Your task to perform on an android device: Show the shopping cart on newegg.com. Add "beats solo 3" to the cart on newegg.com Image 0: 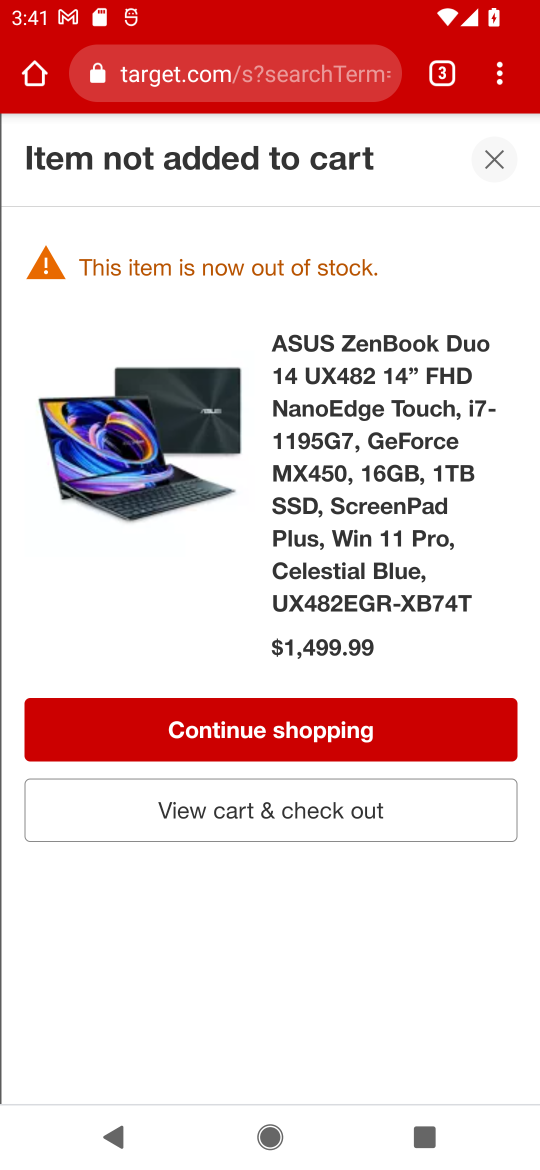
Step 0: press home button
Your task to perform on an android device: Show the shopping cart on newegg.com. Add "beats solo 3" to the cart on newegg.com Image 1: 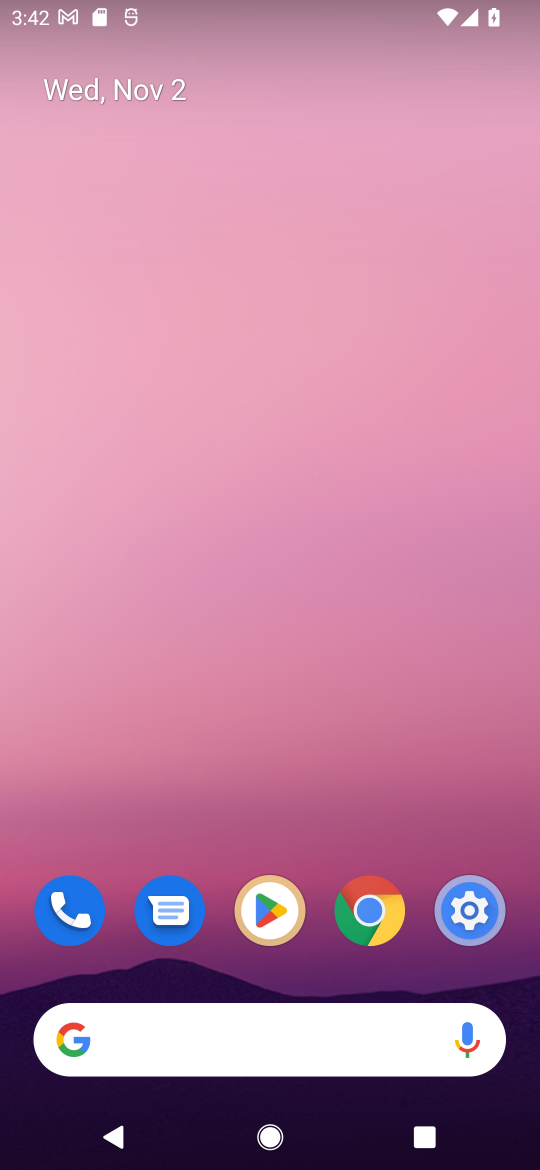
Step 1: click (372, 922)
Your task to perform on an android device: Show the shopping cart on newegg.com. Add "beats solo 3" to the cart on newegg.com Image 2: 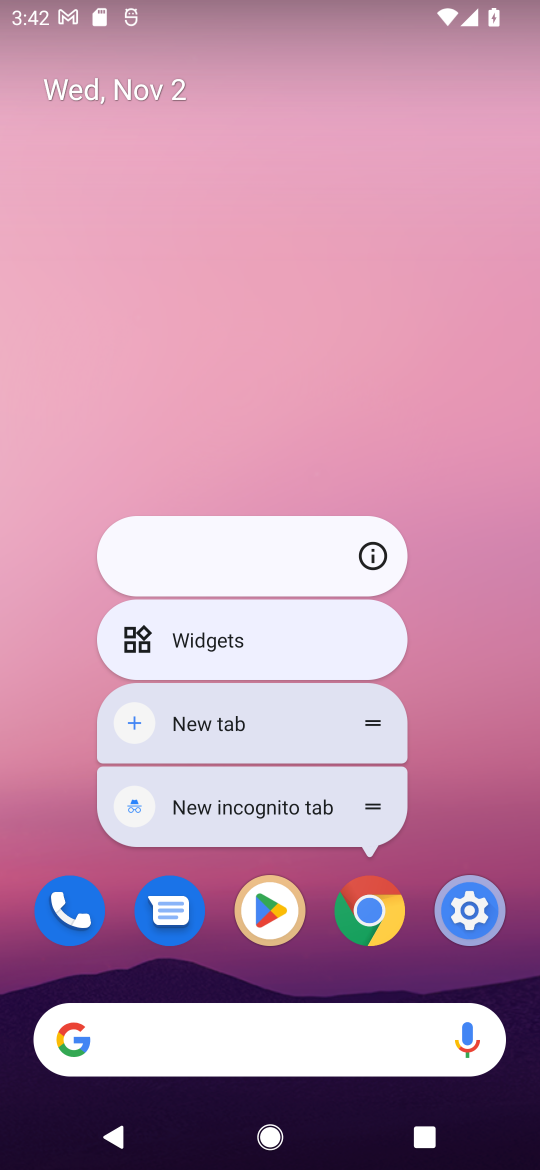
Step 2: click (370, 912)
Your task to perform on an android device: Show the shopping cart on newegg.com. Add "beats solo 3" to the cart on newegg.com Image 3: 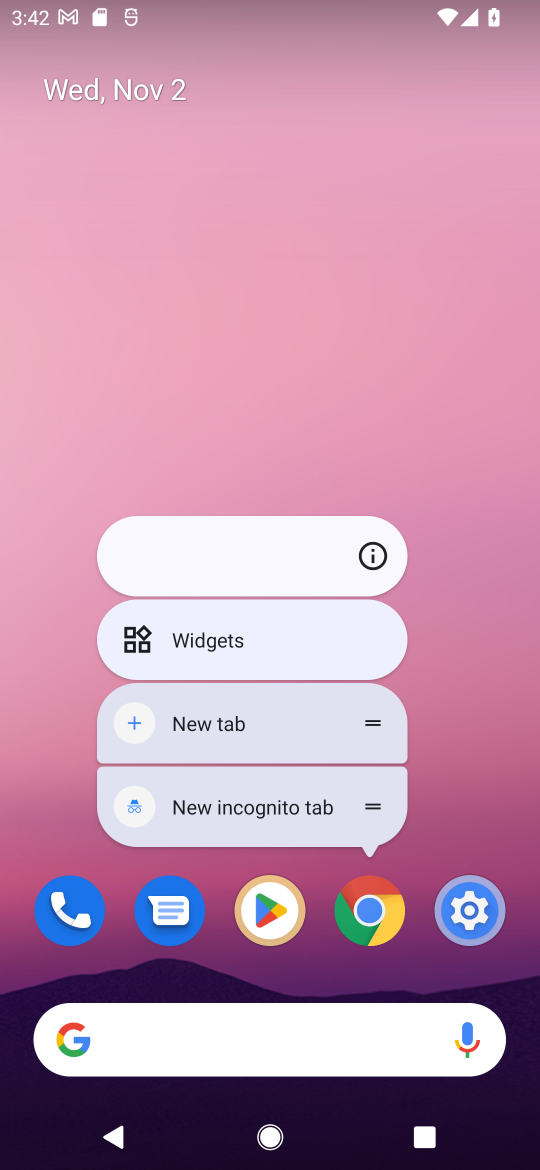
Step 3: click (368, 907)
Your task to perform on an android device: Show the shopping cart on newegg.com. Add "beats solo 3" to the cart on newegg.com Image 4: 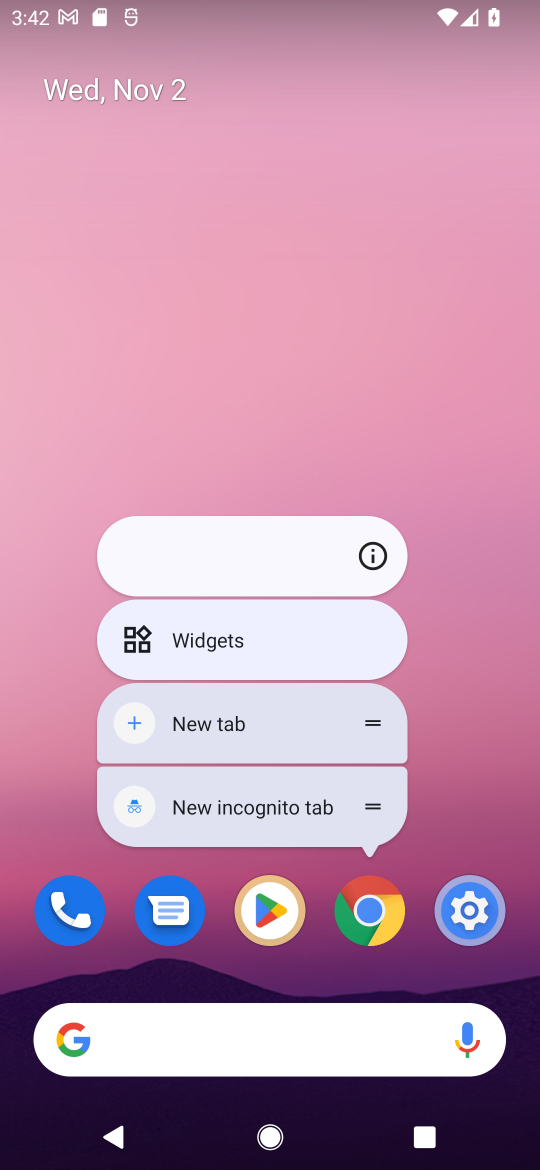
Step 4: click (368, 905)
Your task to perform on an android device: Show the shopping cart on newegg.com. Add "beats solo 3" to the cart on newegg.com Image 5: 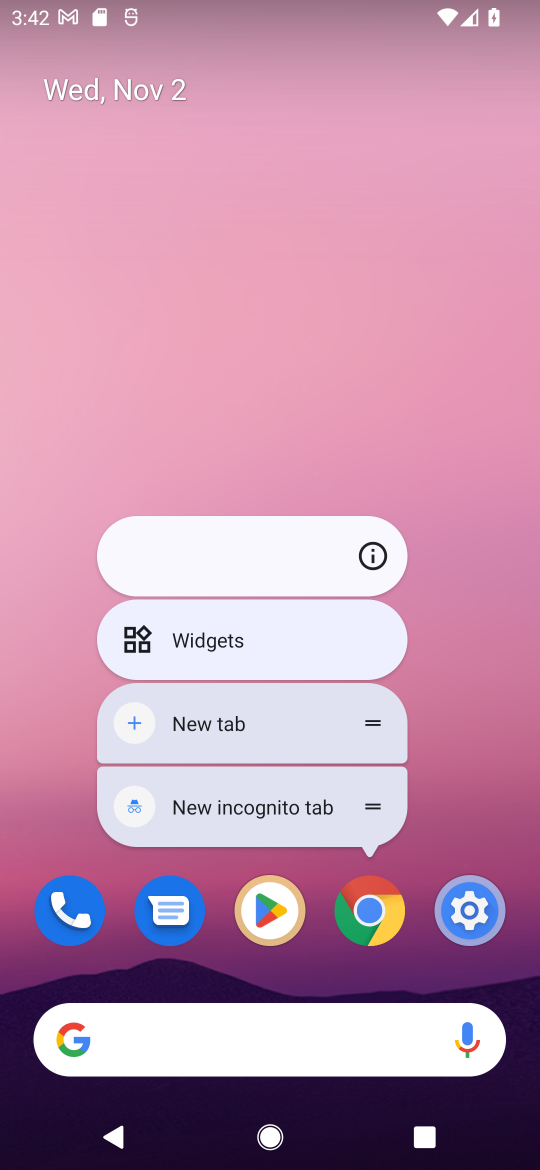
Step 5: click (375, 914)
Your task to perform on an android device: Show the shopping cart on newegg.com. Add "beats solo 3" to the cart on newegg.com Image 6: 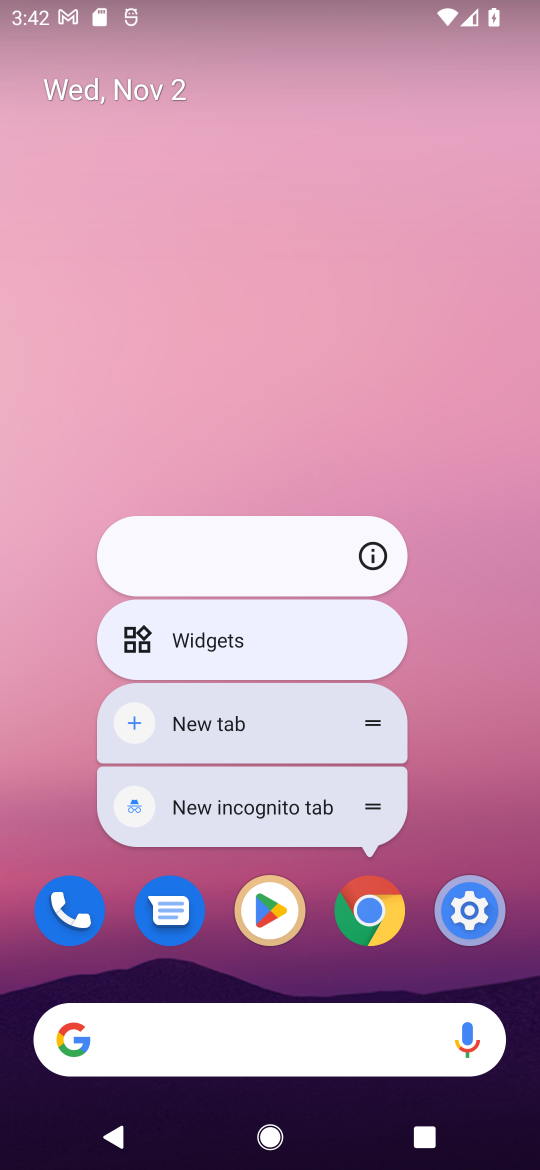
Step 6: click (271, 1065)
Your task to perform on an android device: Show the shopping cart on newegg.com. Add "beats solo 3" to the cart on newegg.com Image 7: 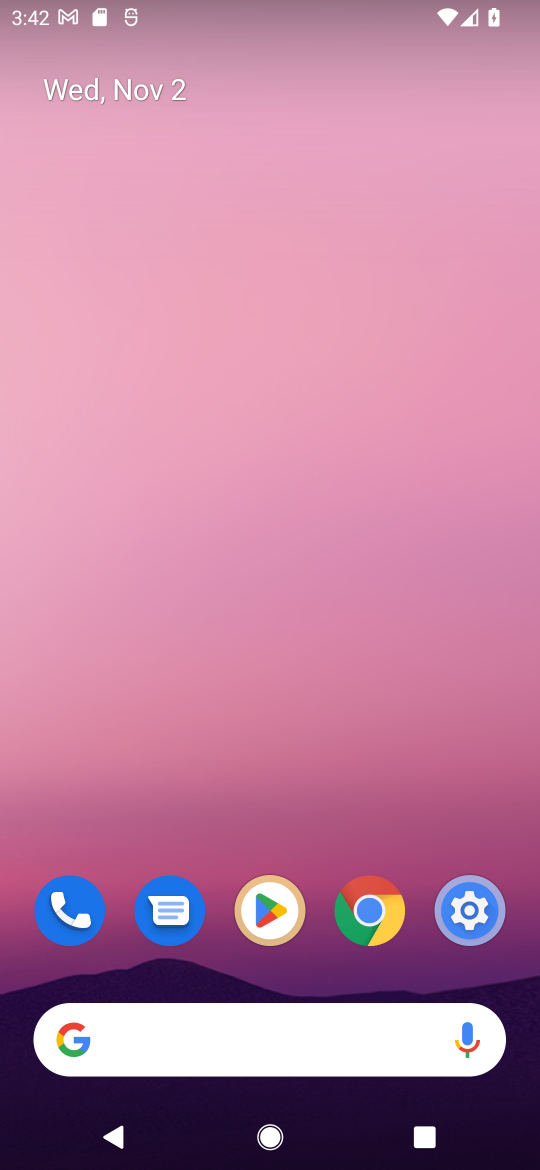
Step 7: click (272, 1064)
Your task to perform on an android device: Show the shopping cart on newegg.com. Add "beats solo 3" to the cart on newegg.com Image 8: 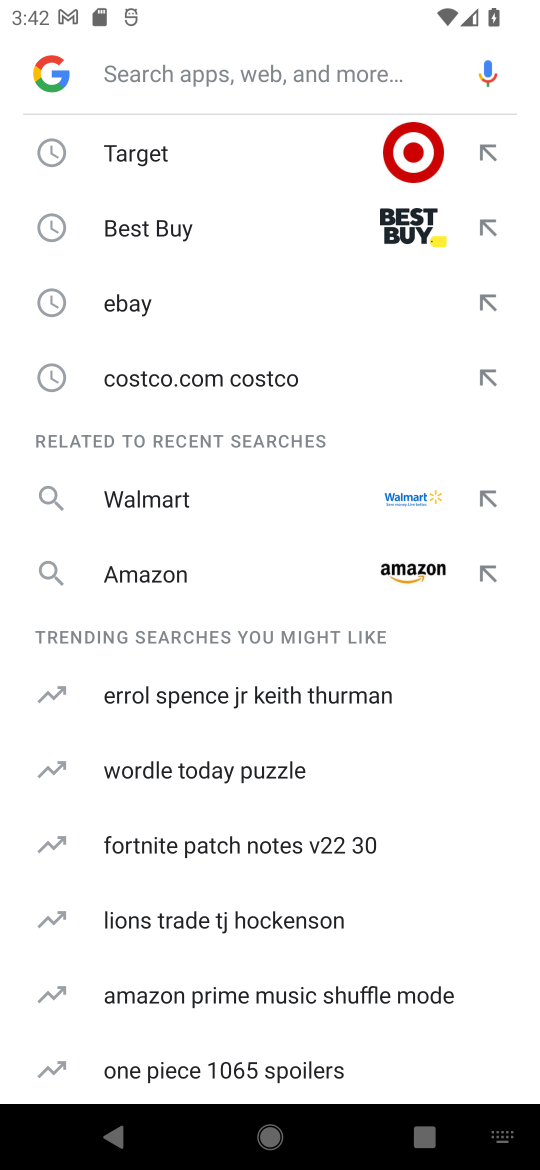
Step 8: type "newegg.com"
Your task to perform on an android device: Show the shopping cart on newegg.com. Add "beats solo 3" to the cart on newegg.com Image 9: 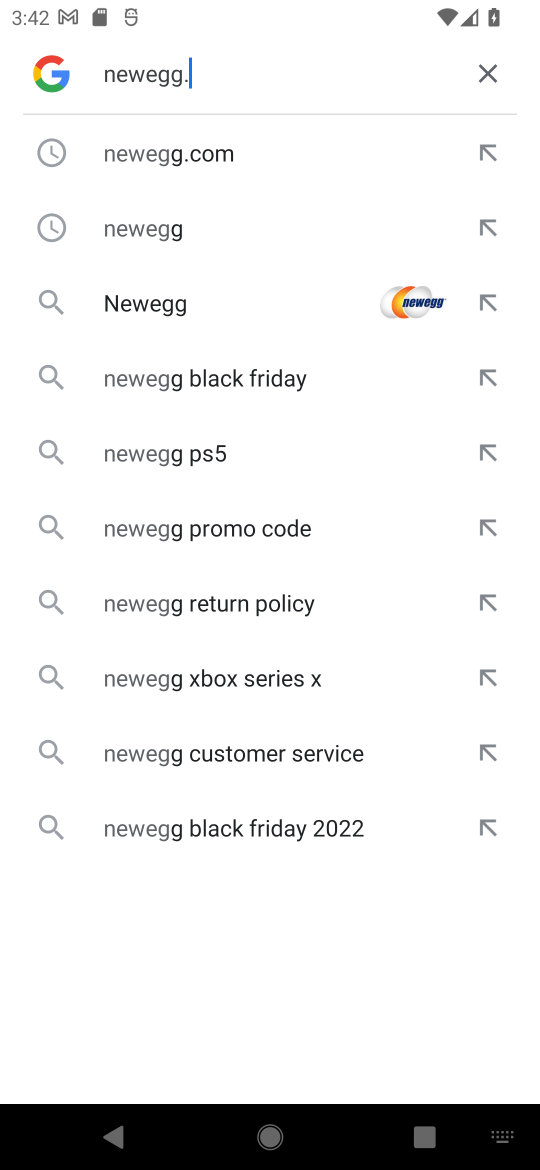
Step 9: type ""
Your task to perform on an android device: Show the shopping cart on newegg.com. Add "beats solo 3" to the cart on newegg.com Image 10: 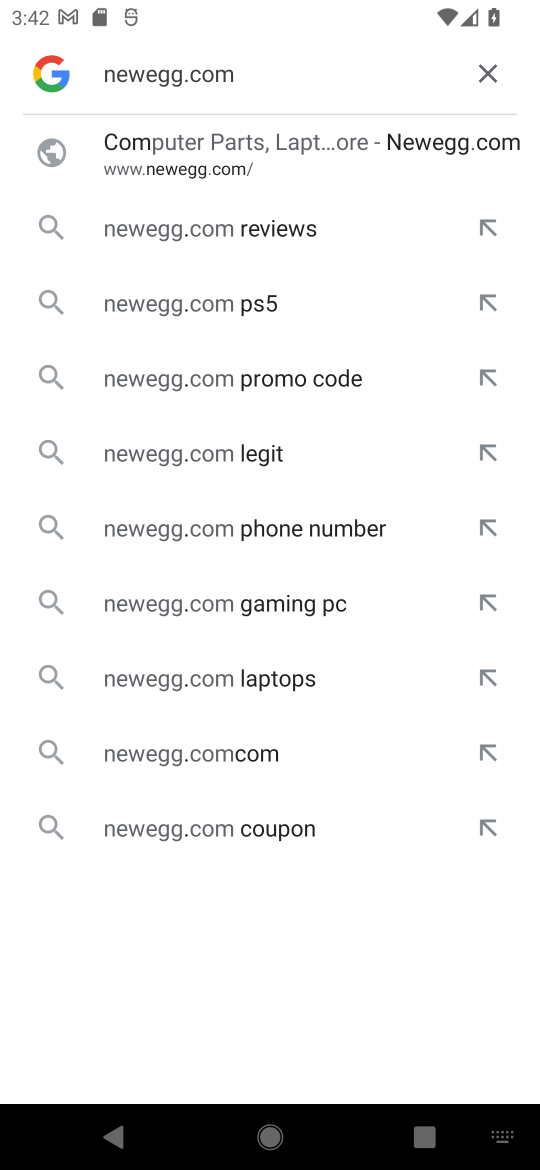
Step 10: press enter
Your task to perform on an android device: Show the shopping cart on newegg.com. Add "beats solo 3" to the cart on newegg.com Image 11: 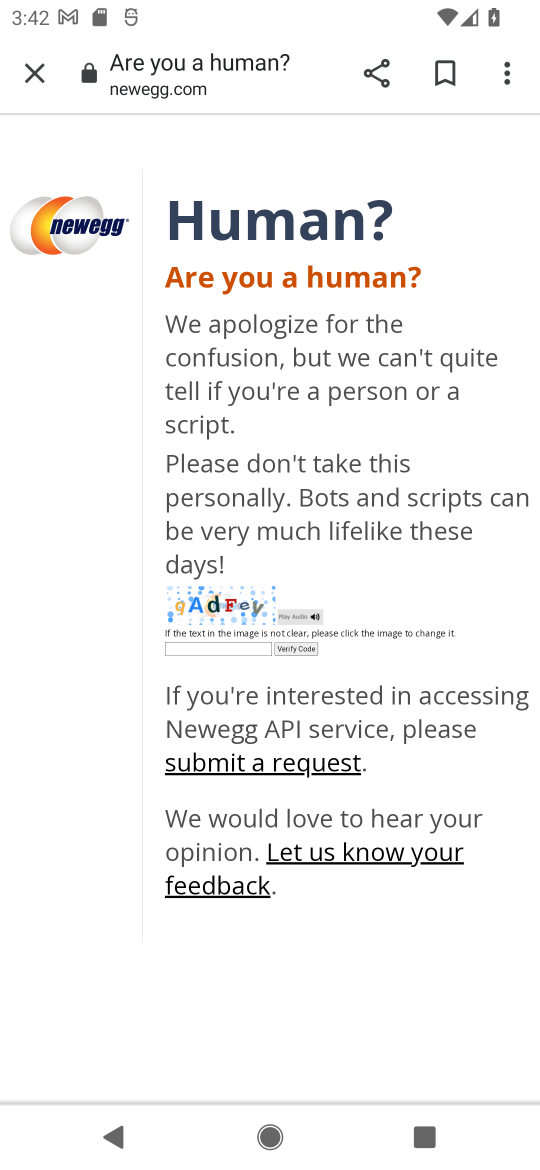
Step 11: click (299, 743)
Your task to perform on an android device: Show the shopping cart on newegg.com. Add "beats solo 3" to the cart on newegg.com Image 12: 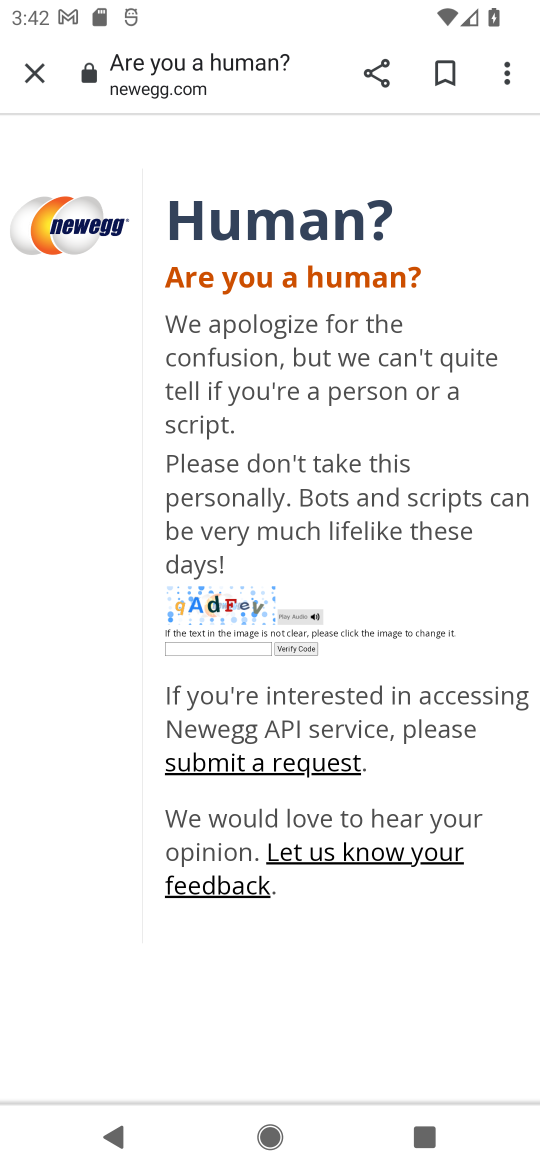
Step 12: task complete